Your task to perform on an android device: turn off improve location accuracy Image 0: 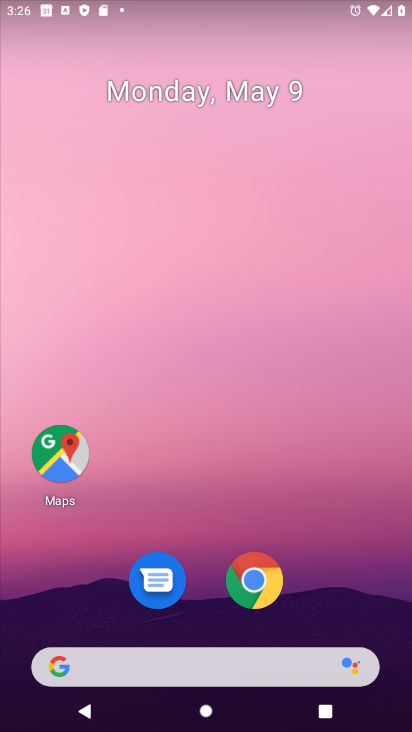
Step 0: drag from (326, 581) to (222, 158)
Your task to perform on an android device: turn off improve location accuracy Image 1: 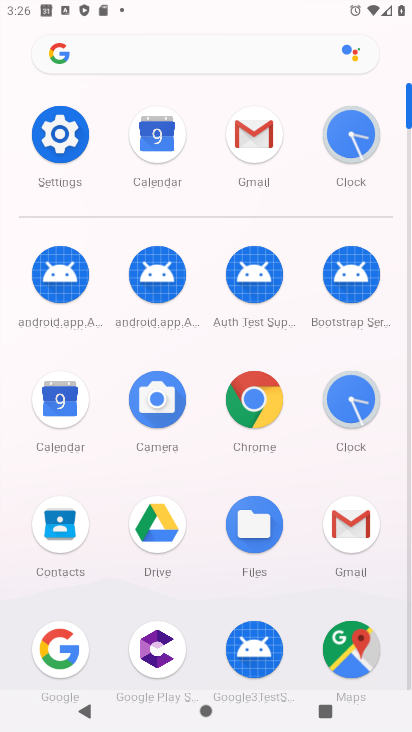
Step 1: click (53, 123)
Your task to perform on an android device: turn off improve location accuracy Image 2: 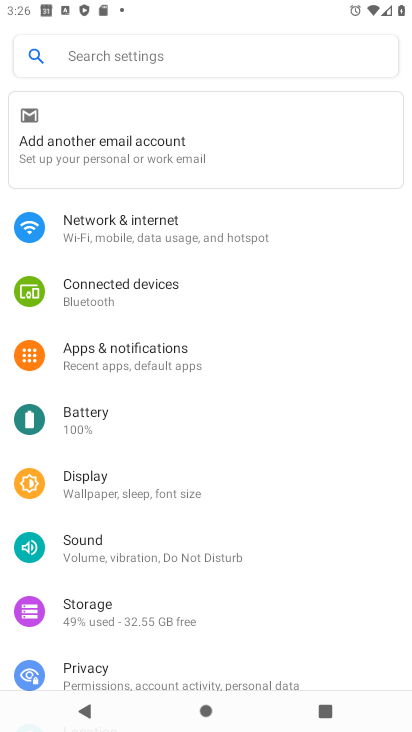
Step 2: drag from (245, 590) to (238, 243)
Your task to perform on an android device: turn off improve location accuracy Image 3: 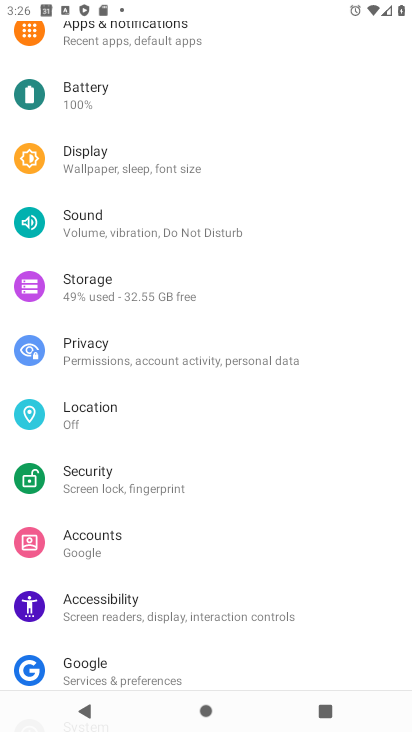
Step 3: click (117, 421)
Your task to perform on an android device: turn off improve location accuracy Image 4: 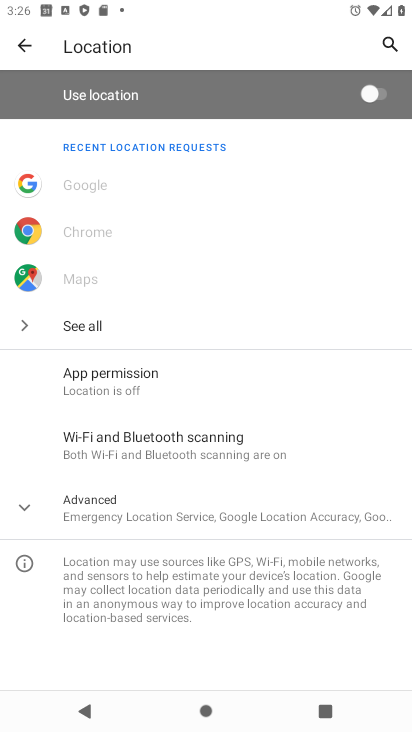
Step 4: click (197, 506)
Your task to perform on an android device: turn off improve location accuracy Image 5: 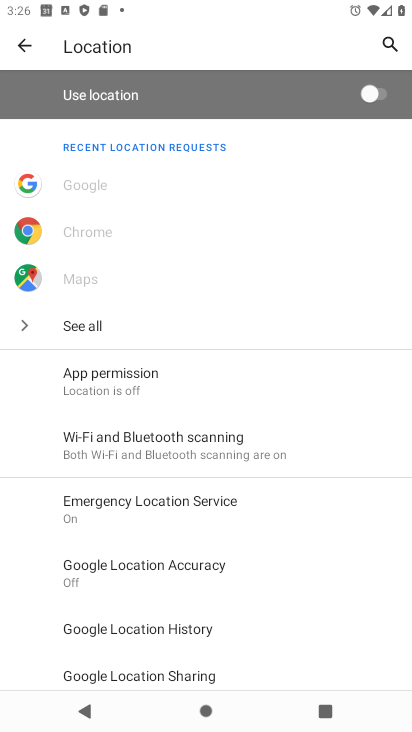
Step 5: click (182, 567)
Your task to perform on an android device: turn off improve location accuracy Image 6: 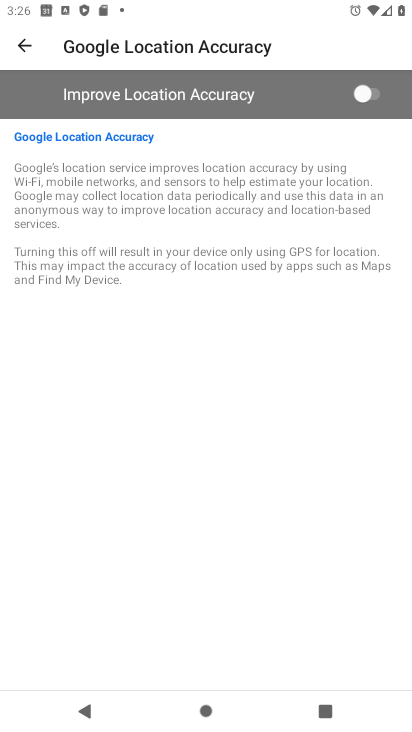
Step 6: task complete